Your task to perform on an android device: turn on javascript in the chrome app Image 0: 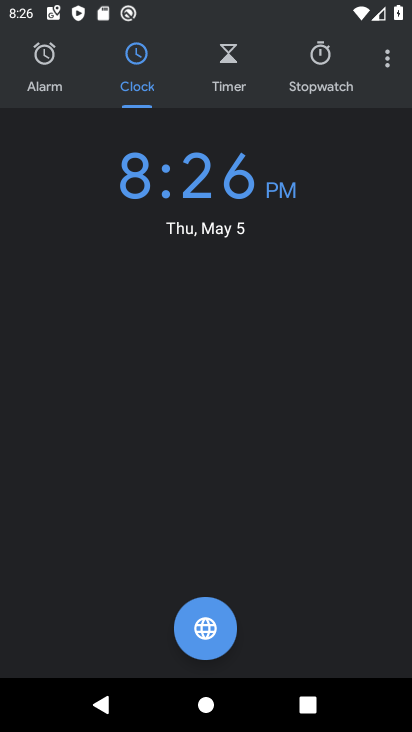
Step 0: press home button
Your task to perform on an android device: turn on javascript in the chrome app Image 1: 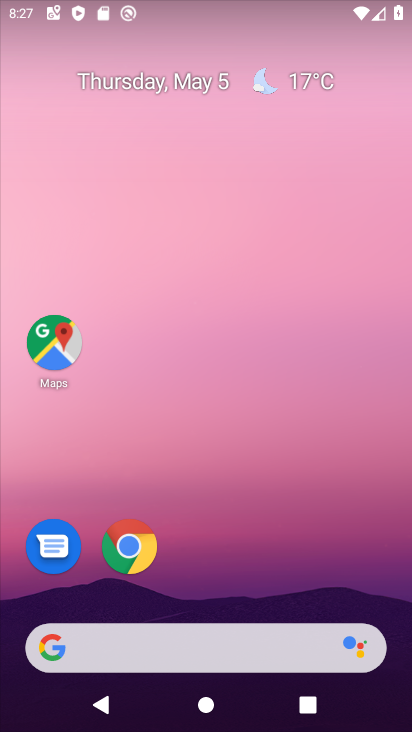
Step 1: drag from (150, 639) to (234, 41)
Your task to perform on an android device: turn on javascript in the chrome app Image 2: 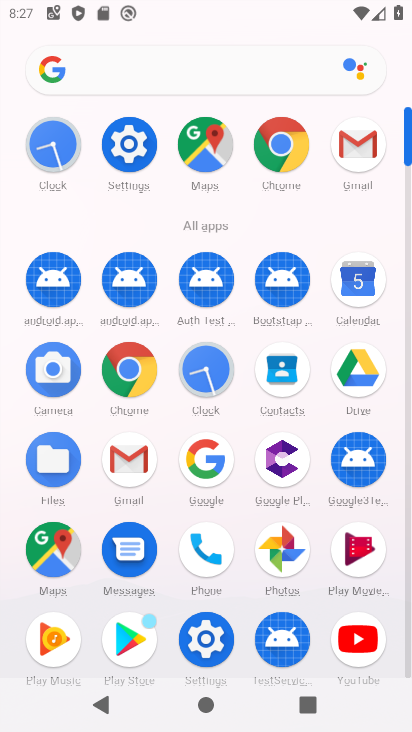
Step 2: click (284, 146)
Your task to perform on an android device: turn on javascript in the chrome app Image 3: 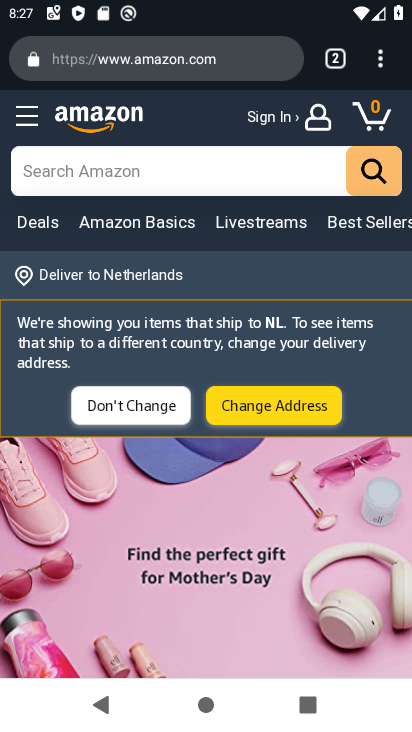
Step 3: drag from (380, 69) to (204, 568)
Your task to perform on an android device: turn on javascript in the chrome app Image 4: 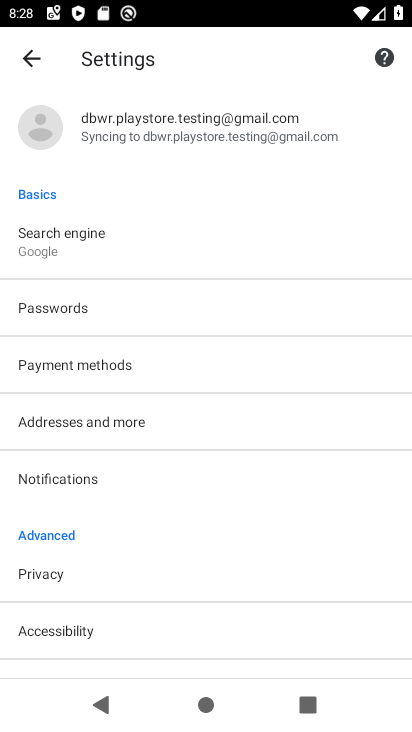
Step 4: drag from (106, 623) to (197, 212)
Your task to perform on an android device: turn on javascript in the chrome app Image 5: 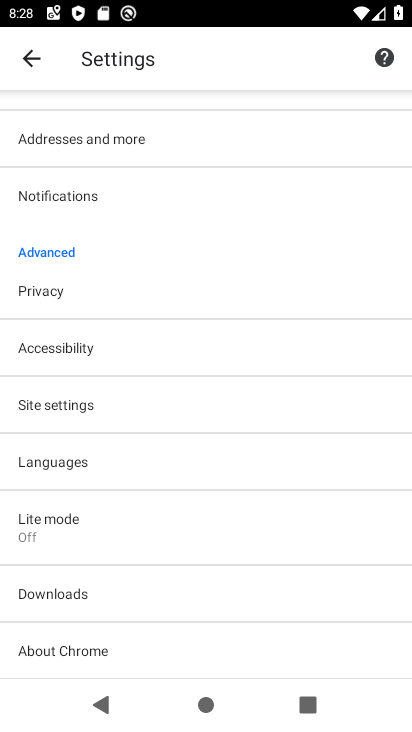
Step 5: click (87, 409)
Your task to perform on an android device: turn on javascript in the chrome app Image 6: 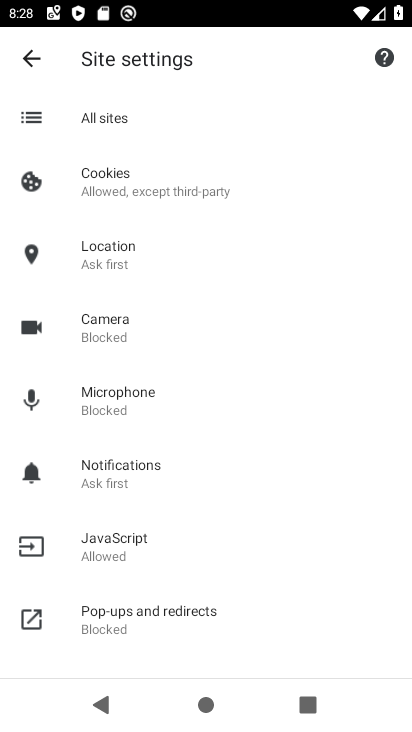
Step 6: click (100, 540)
Your task to perform on an android device: turn on javascript in the chrome app Image 7: 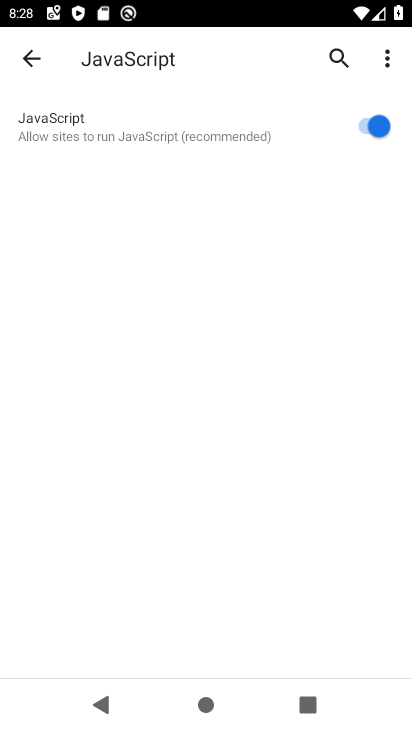
Step 7: task complete